Your task to perform on an android device: Open notification settings Image 0: 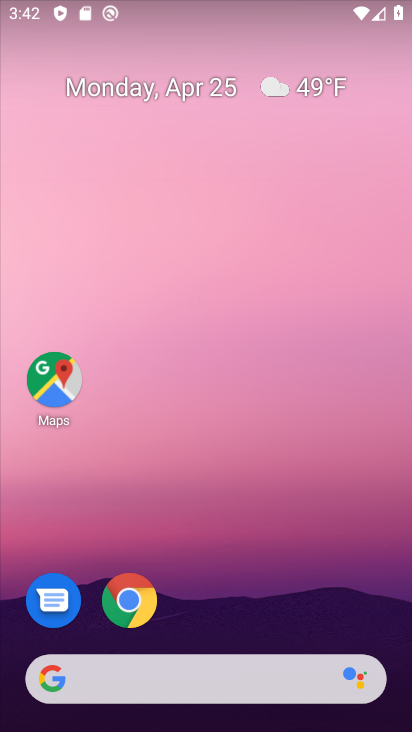
Step 0: drag from (272, 625) to (238, 43)
Your task to perform on an android device: Open notification settings Image 1: 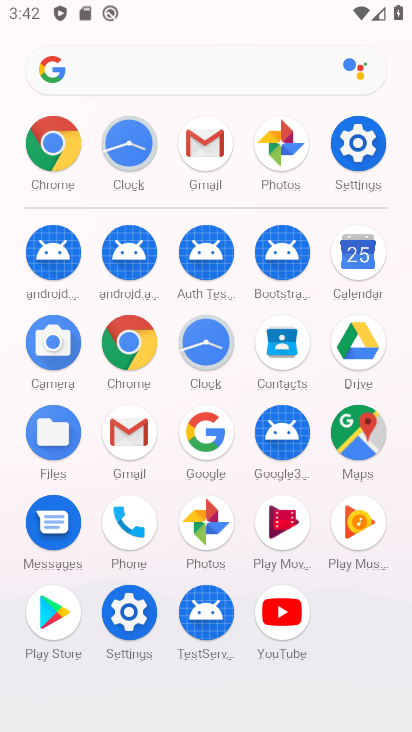
Step 1: click (351, 144)
Your task to perform on an android device: Open notification settings Image 2: 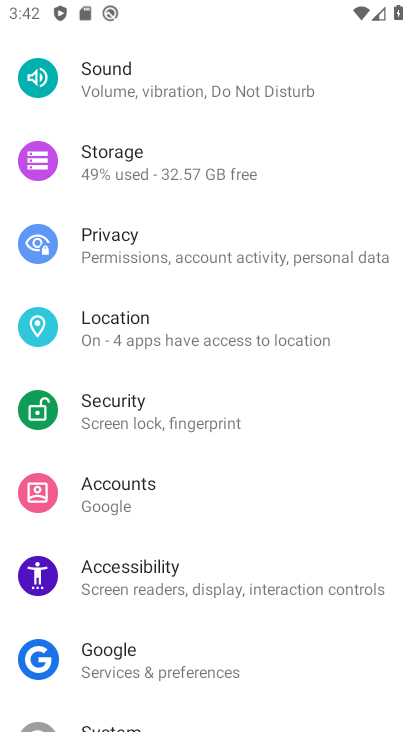
Step 2: drag from (297, 188) to (250, 635)
Your task to perform on an android device: Open notification settings Image 3: 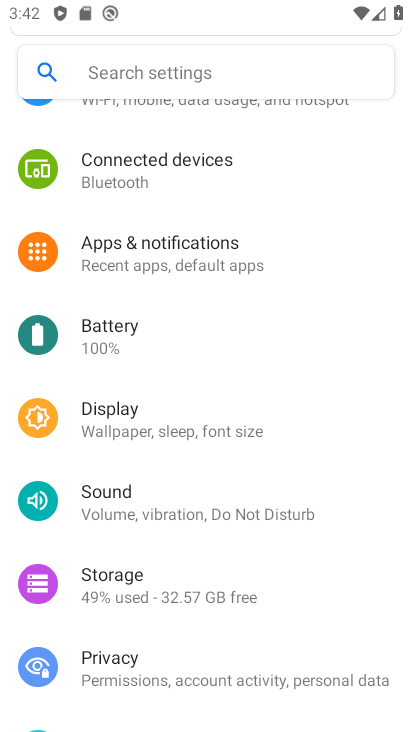
Step 3: click (227, 239)
Your task to perform on an android device: Open notification settings Image 4: 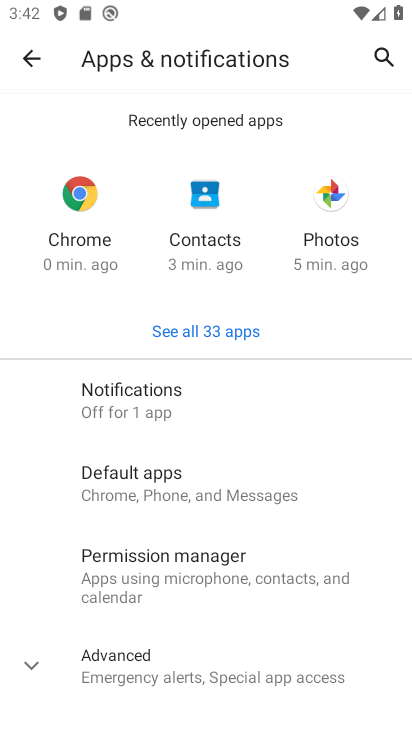
Step 4: task complete